Your task to perform on an android device: When is my next appointment? Image 0: 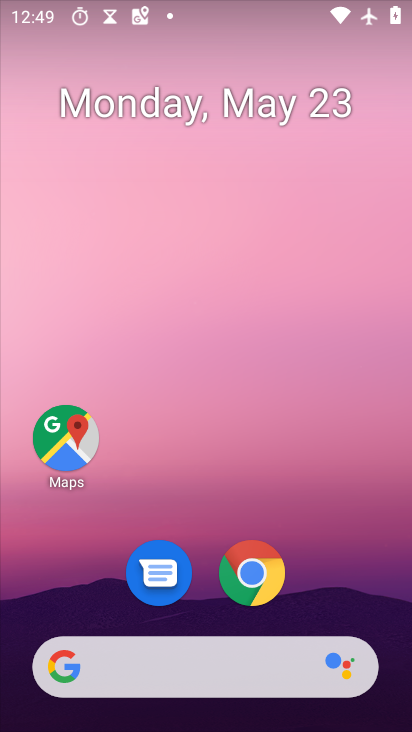
Step 0: press home button
Your task to perform on an android device: When is my next appointment? Image 1: 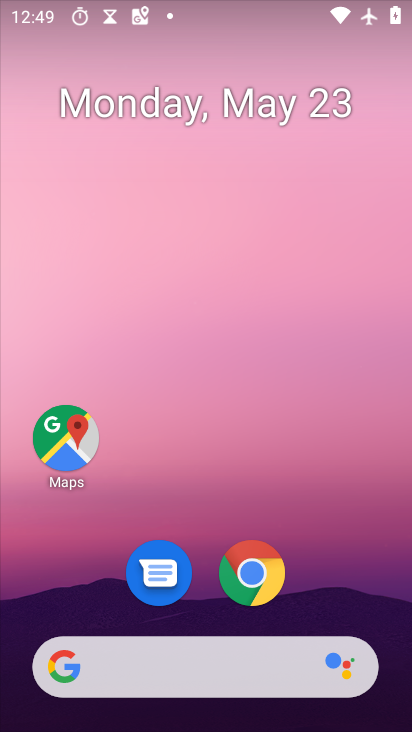
Step 1: drag from (147, 661) to (276, 81)
Your task to perform on an android device: When is my next appointment? Image 2: 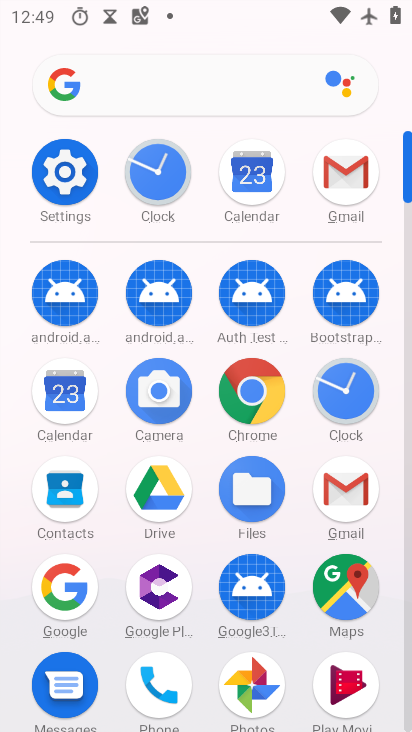
Step 2: click (72, 404)
Your task to perform on an android device: When is my next appointment? Image 3: 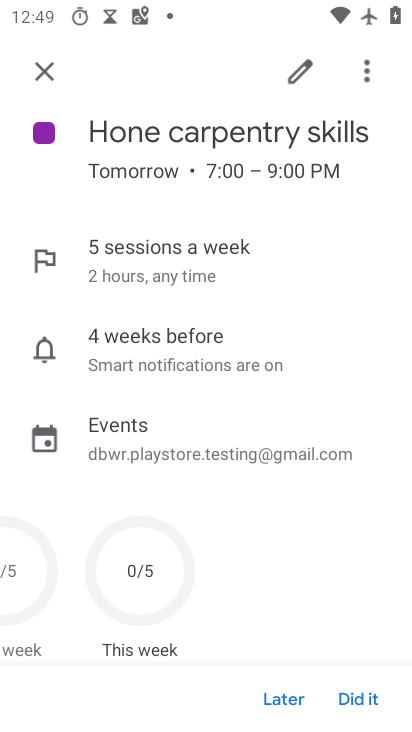
Step 3: click (37, 80)
Your task to perform on an android device: When is my next appointment? Image 4: 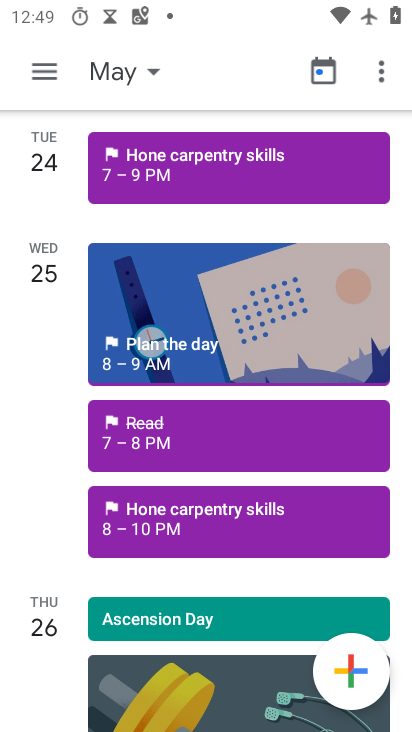
Step 4: click (112, 74)
Your task to perform on an android device: When is my next appointment? Image 5: 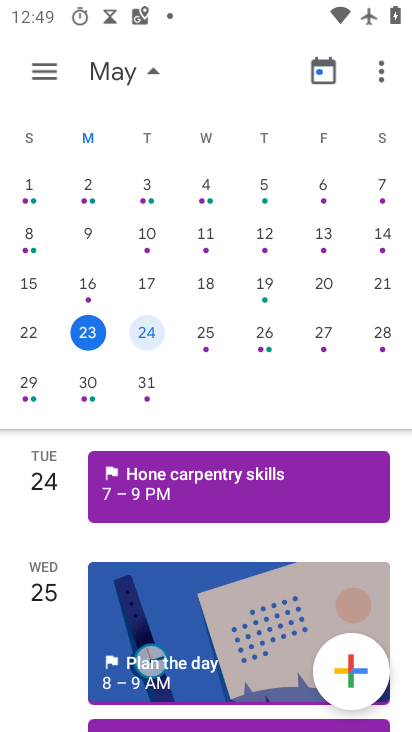
Step 5: click (48, 59)
Your task to perform on an android device: When is my next appointment? Image 6: 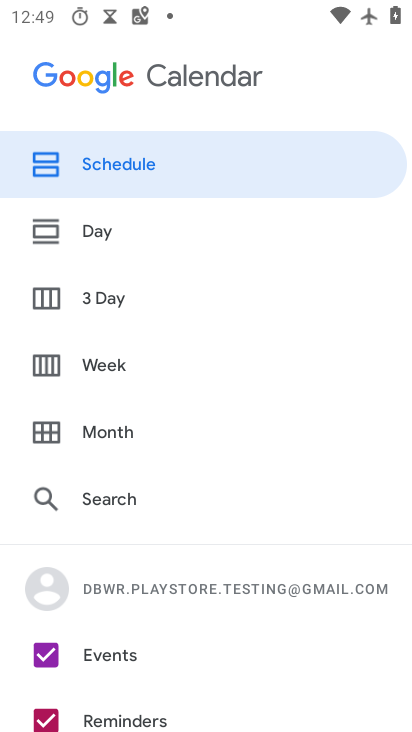
Step 6: click (142, 171)
Your task to perform on an android device: When is my next appointment? Image 7: 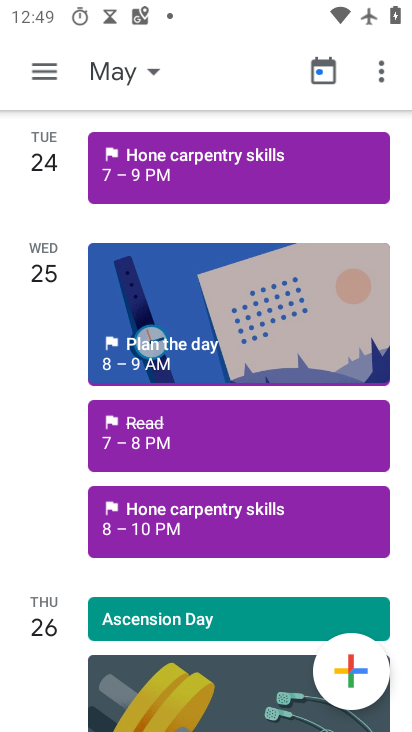
Step 7: click (201, 446)
Your task to perform on an android device: When is my next appointment? Image 8: 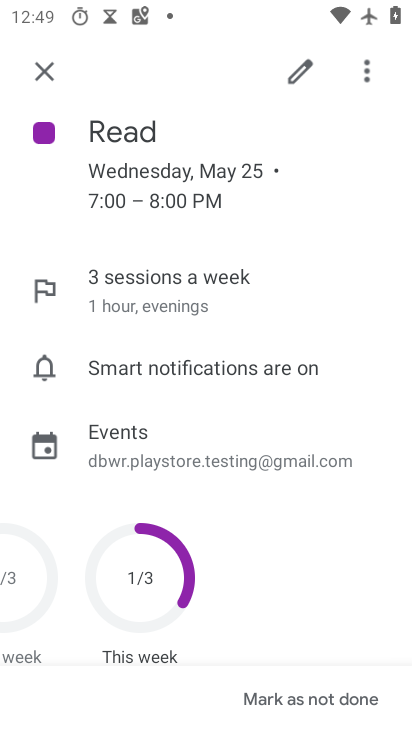
Step 8: task complete